Your task to perform on an android device: Open the calendar and show me this week's events? Image 0: 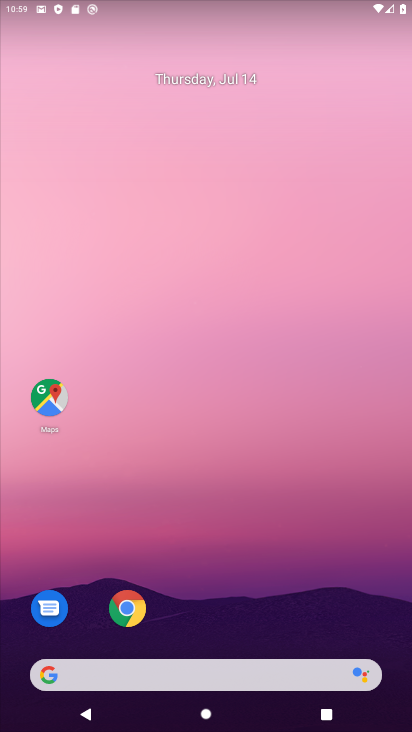
Step 0: drag from (329, 577) to (267, 5)
Your task to perform on an android device: Open the calendar and show me this week's events? Image 1: 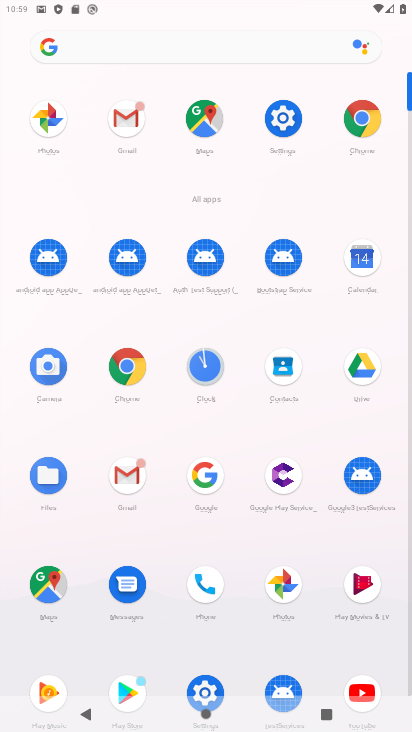
Step 1: click (347, 262)
Your task to perform on an android device: Open the calendar and show me this week's events? Image 2: 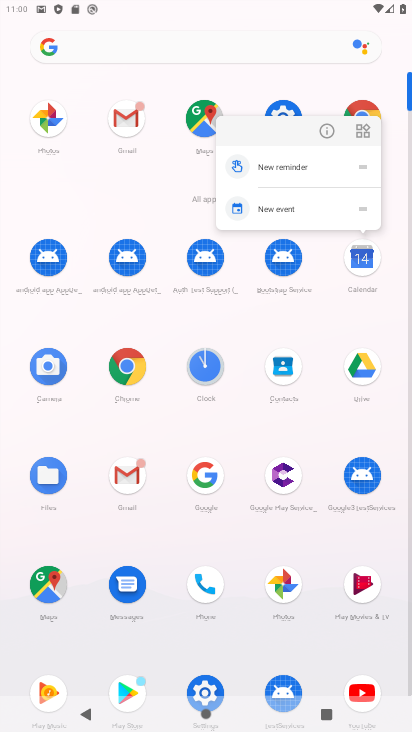
Step 2: click (356, 268)
Your task to perform on an android device: Open the calendar and show me this week's events? Image 3: 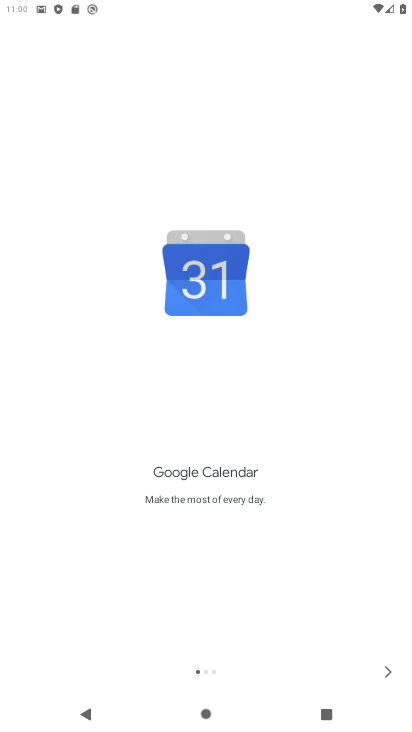
Step 3: click (394, 673)
Your task to perform on an android device: Open the calendar and show me this week's events? Image 4: 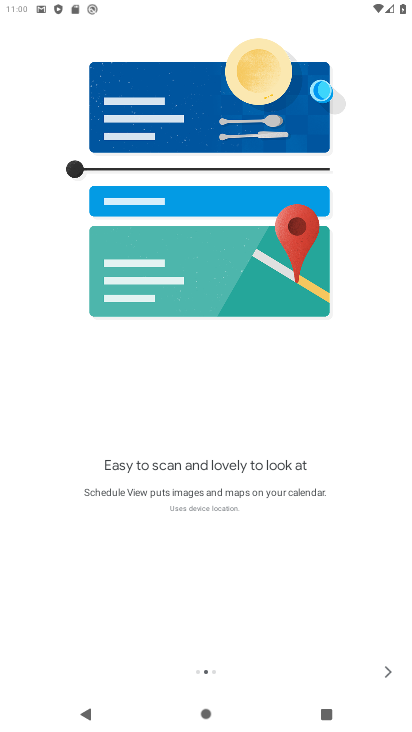
Step 4: click (380, 680)
Your task to perform on an android device: Open the calendar and show me this week's events? Image 5: 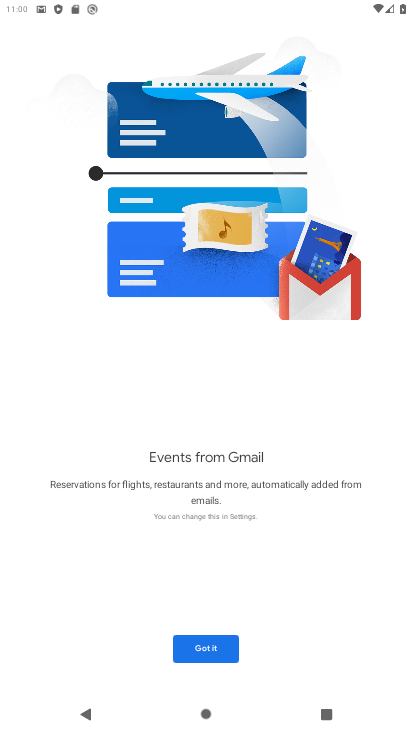
Step 5: click (219, 646)
Your task to perform on an android device: Open the calendar and show me this week's events? Image 6: 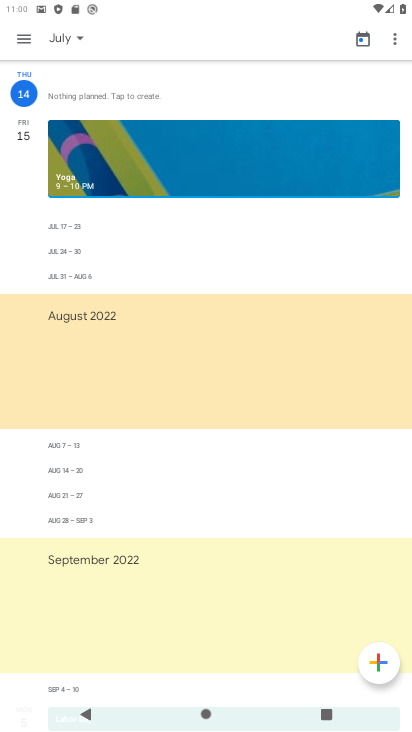
Step 6: click (67, 45)
Your task to perform on an android device: Open the calendar and show me this week's events? Image 7: 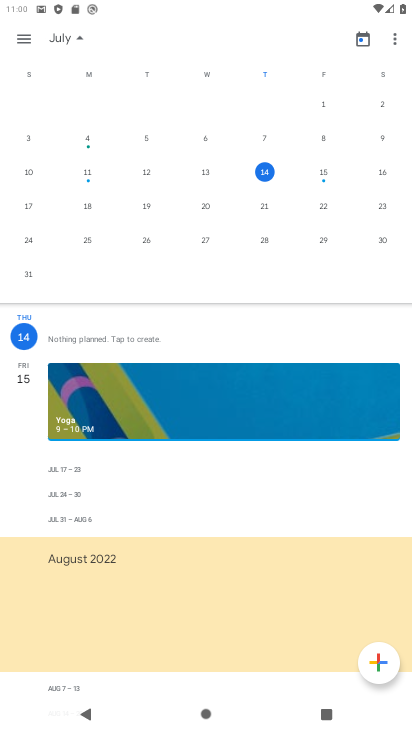
Step 7: task complete